Your task to perform on an android device: empty trash in the gmail app Image 0: 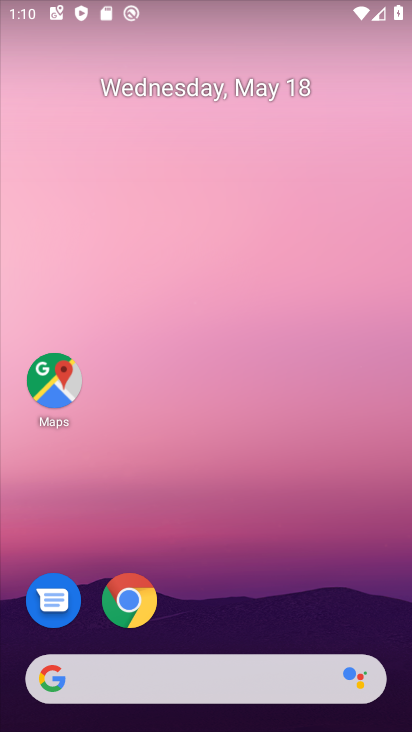
Step 0: drag from (280, 594) to (204, 172)
Your task to perform on an android device: empty trash in the gmail app Image 1: 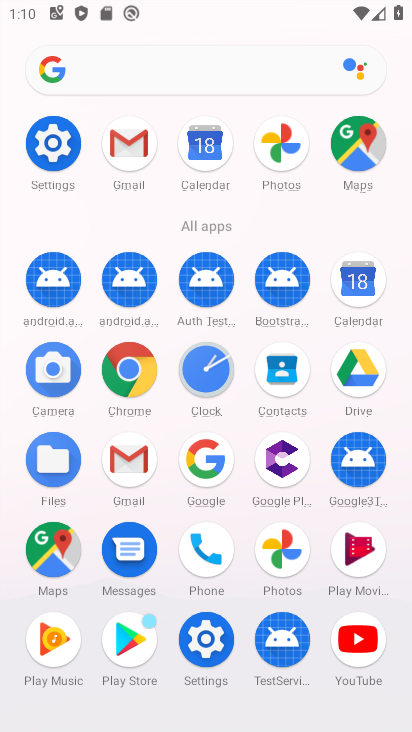
Step 1: click (125, 141)
Your task to perform on an android device: empty trash in the gmail app Image 2: 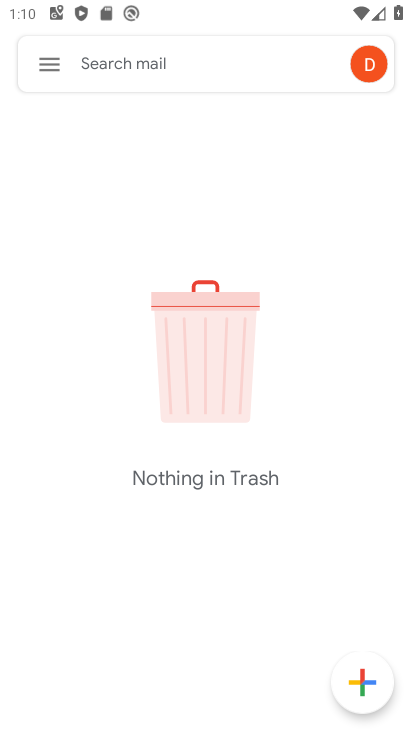
Step 2: click (56, 67)
Your task to perform on an android device: empty trash in the gmail app Image 3: 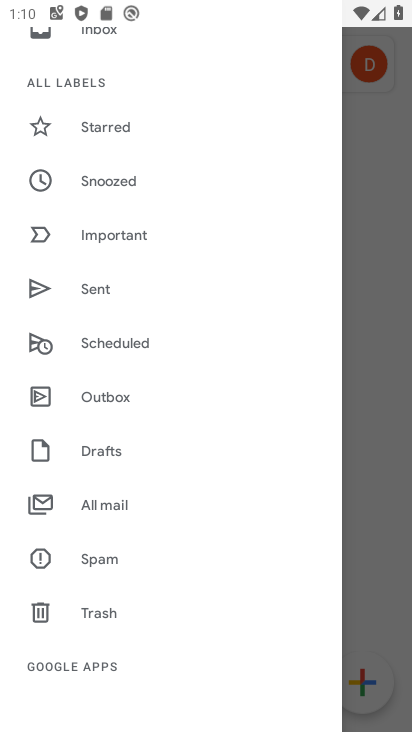
Step 3: click (100, 610)
Your task to perform on an android device: empty trash in the gmail app Image 4: 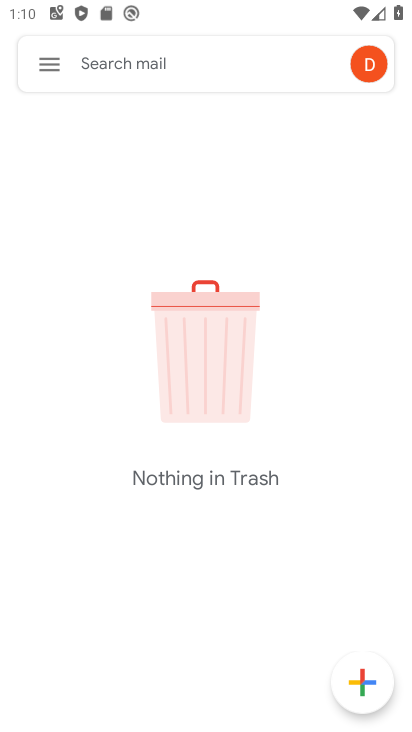
Step 4: task complete